Your task to perform on an android device: turn off notifications settings in the gmail app Image 0: 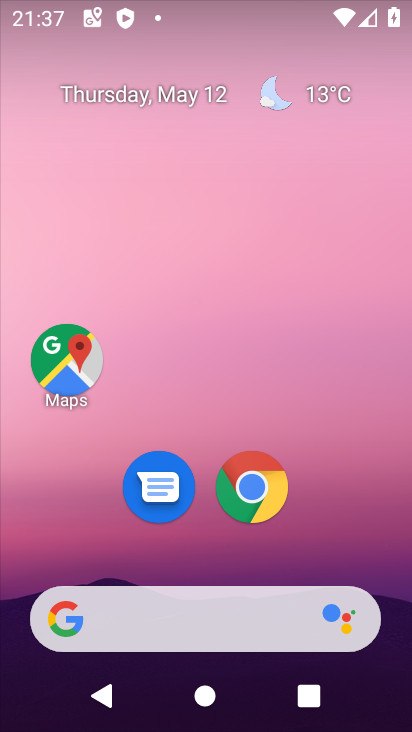
Step 0: drag from (217, 447) to (296, 106)
Your task to perform on an android device: turn off notifications settings in the gmail app Image 1: 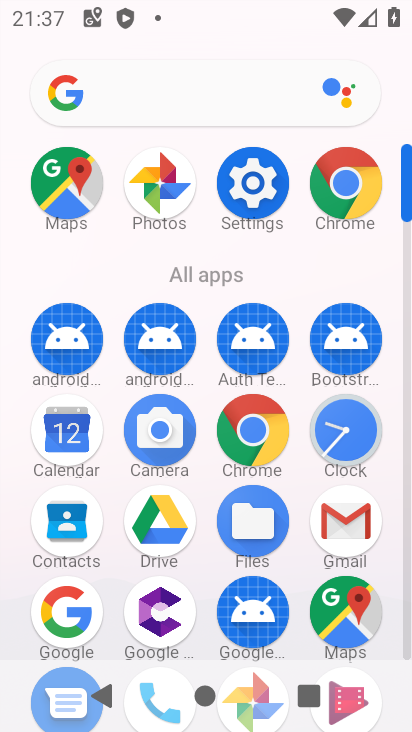
Step 1: click (353, 500)
Your task to perform on an android device: turn off notifications settings in the gmail app Image 2: 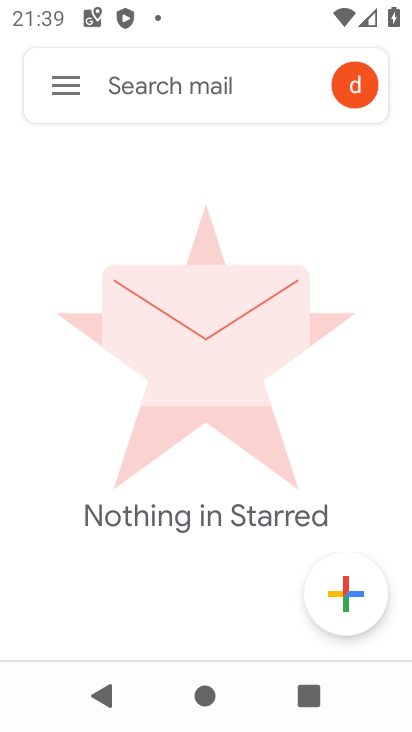
Step 2: click (50, 58)
Your task to perform on an android device: turn off notifications settings in the gmail app Image 3: 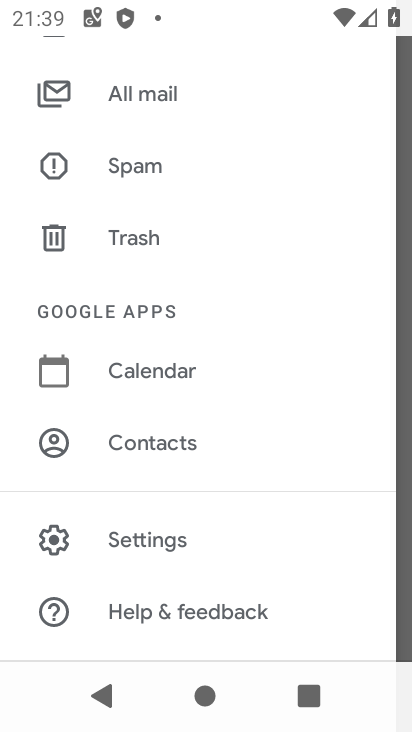
Step 3: click (187, 560)
Your task to perform on an android device: turn off notifications settings in the gmail app Image 4: 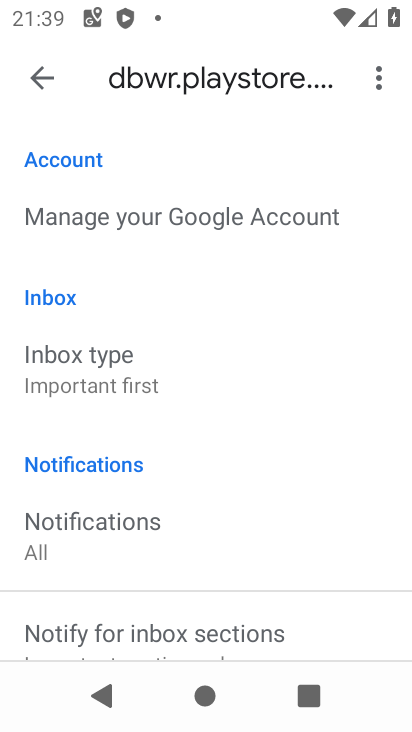
Step 4: drag from (204, 599) to (223, 352)
Your task to perform on an android device: turn off notifications settings in the gmail app Image 5: 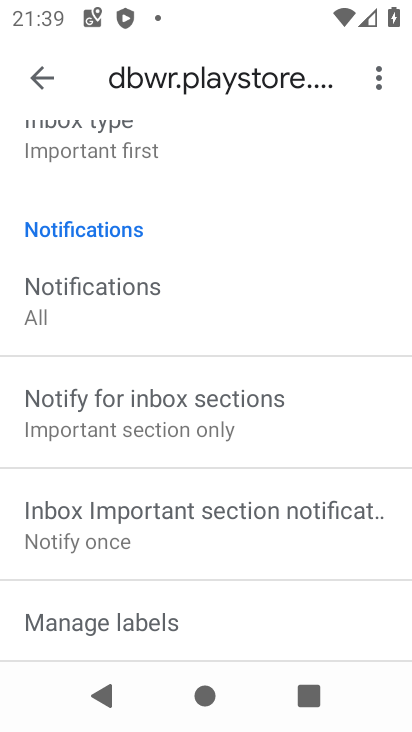
Step 5: click (164, 278)
Your task to perform on an android device: turn off notifications settings in the gmail app Image 6: 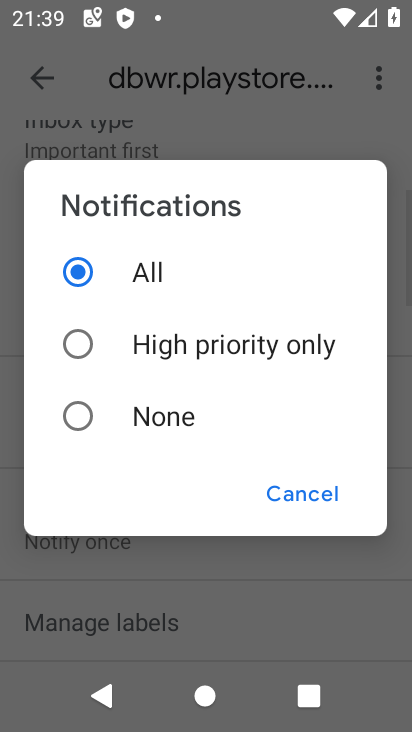
Step 6: click (131, 429)
Your task to perform on an android device: turn off notifications settings in the gmail app Image 7: 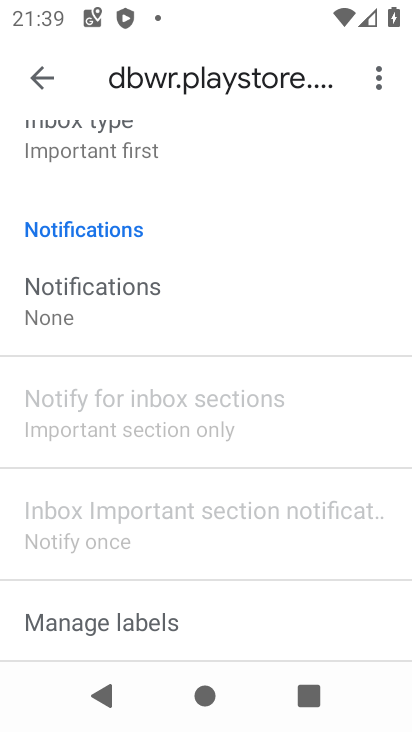
Step 7: task complete